Your task to perform on an android device: turn notification dots on Image 0: 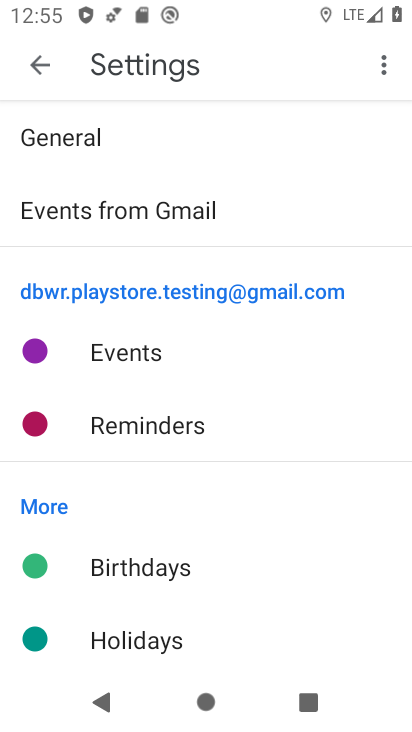
Step 0: press home button
Your task to perform on an android device: turn notification dots on Image 1: 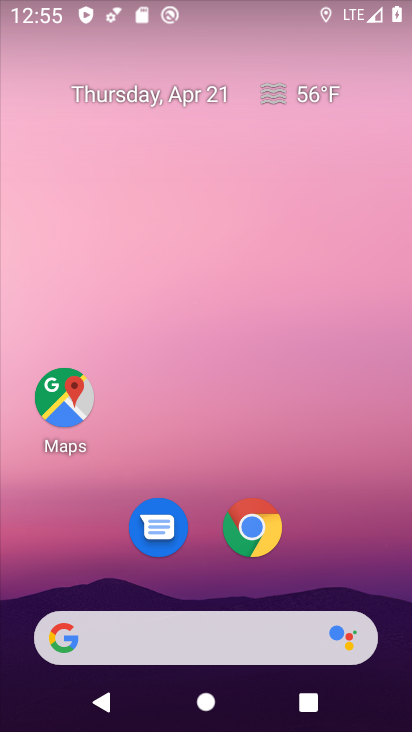
Step 1: drag from (206, 510) to (289, 50)
Your task to perform on an android device: turn notification dots on Image 2: 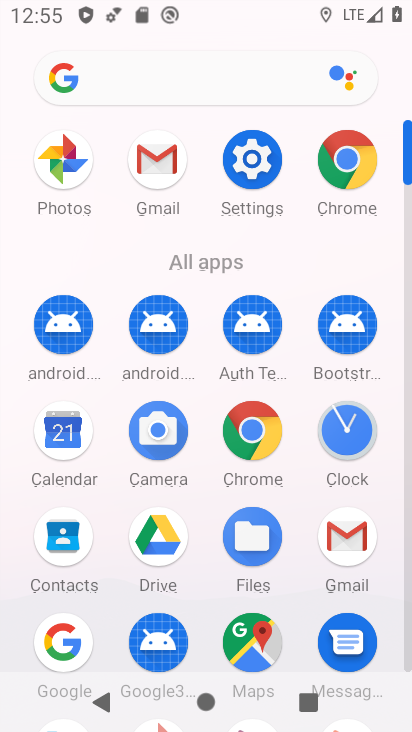
Step 2: click (255, 169)
Your task to perform on an android device: turn notification dots on Image 3: 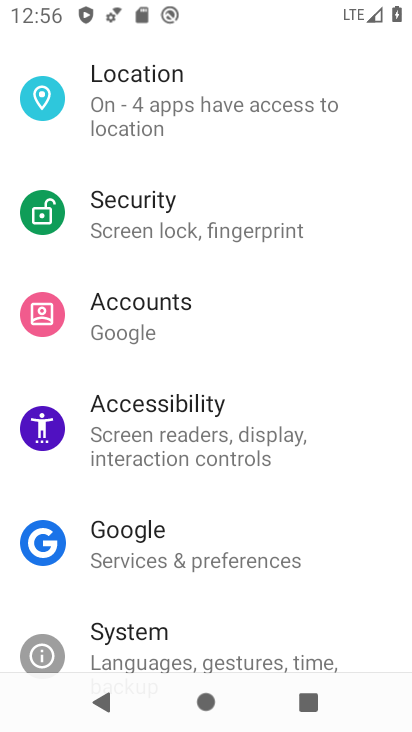
Step 3: drag from (188, 138) to (181, 560)
Your task to perform on an android device: turn notification dots on Image 4: 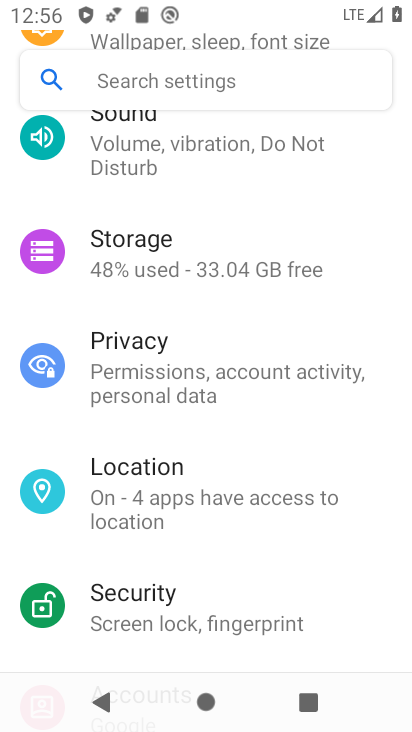
Step 4: drag from (218, 168) to (209, 548)
Your task to perform on an android device: turn notification dots on Image 5: 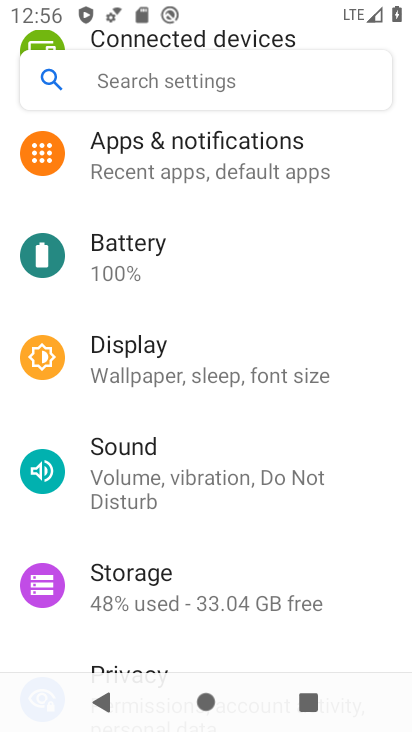
Step 5: click (224, 174)
Your task to perform on an android device: turn notification dots on Image 6: 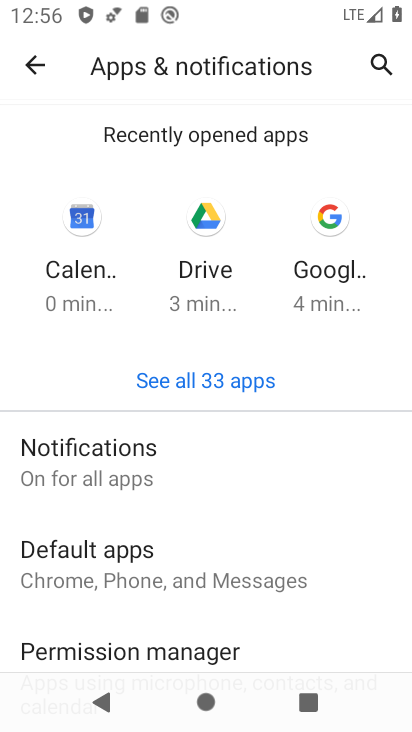
Step 6: click (110, 478)
Your task to perform on an android device: turn notification dots on Image 7: 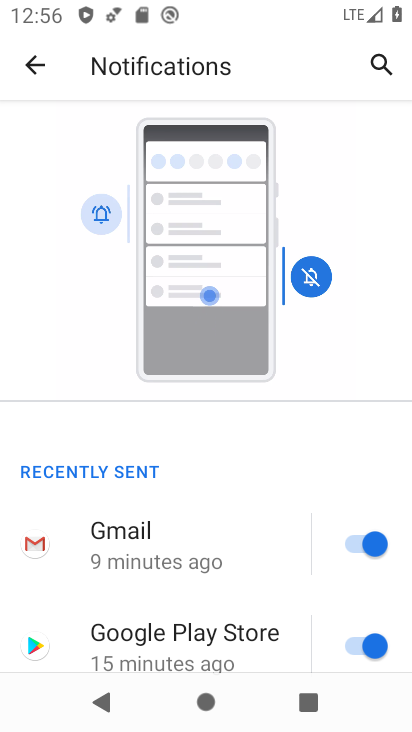
Step 7: drag from (189, 619) to (283, 153)
Your task to perform on an android device: turn notification dots on Image 8: 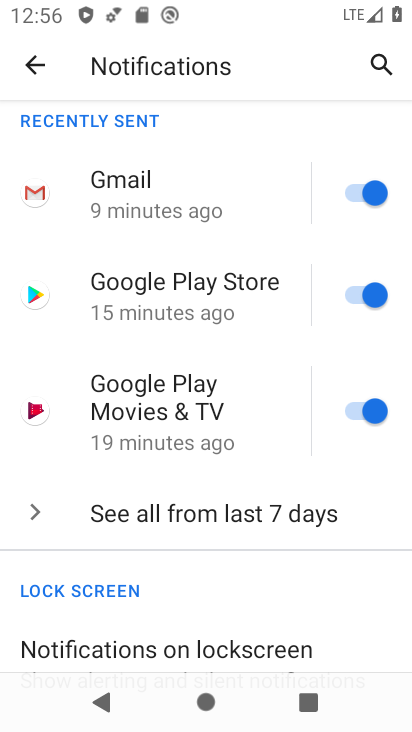
Step 8: drag from (214, 556) to (266, 220)
Your task to perform on an android device: turn notification dots on Image 9: 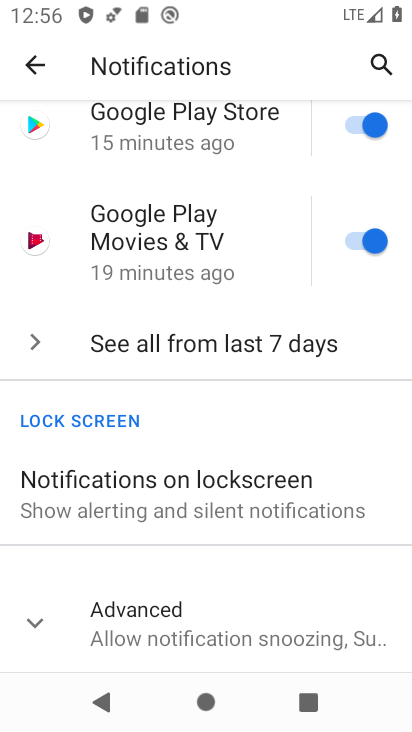
Step 9: click (192, 612)
Your task to perform on an android device: turn notification dots on Image 10: 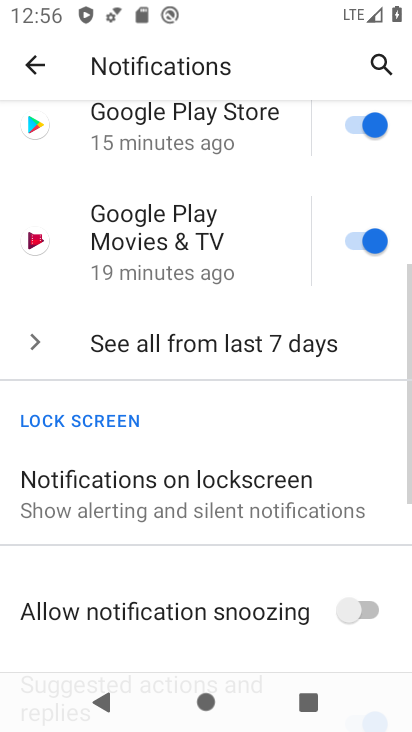
Step 10: drag from (215, 519) to (252, 313)
Your task to perform on an android device: turn notification dots on Image 11: 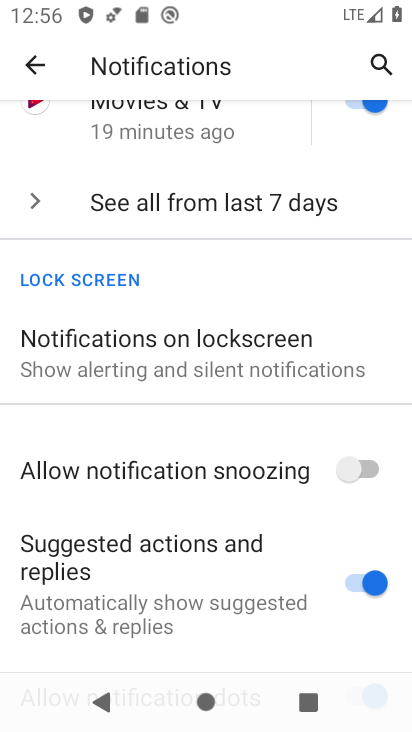
Step 11: drag from (202, 566) to (245, 178)
Your task to perform on an android device: turn notification dots on Image 12: 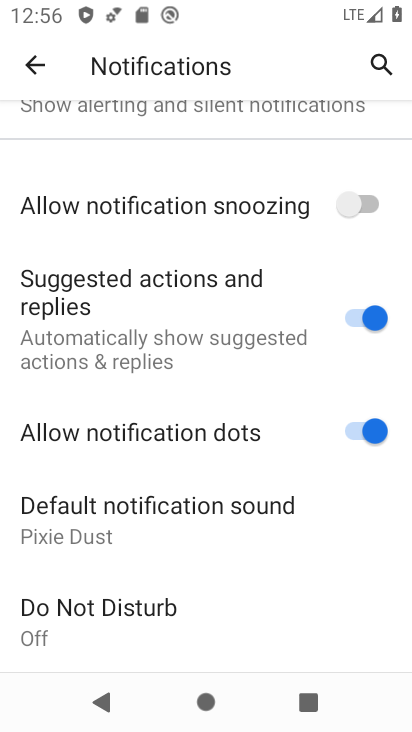
Step 12: click (349, 429)
Your task to perform on an android device: turn notification dots on Image 13: 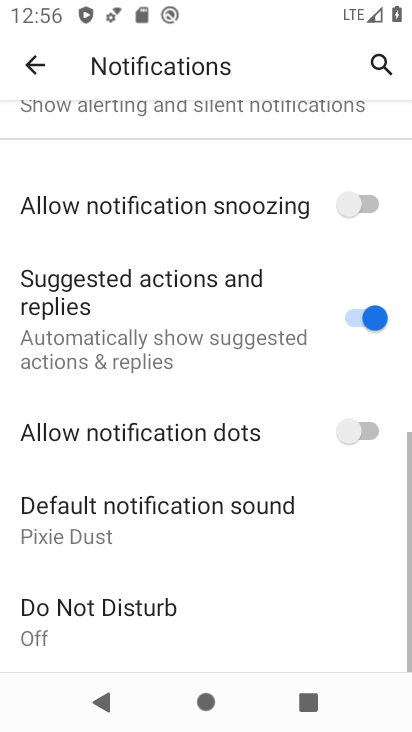
Step 13: task complete